Your task to perform on an android device: create a new album in the google photos Image 0: 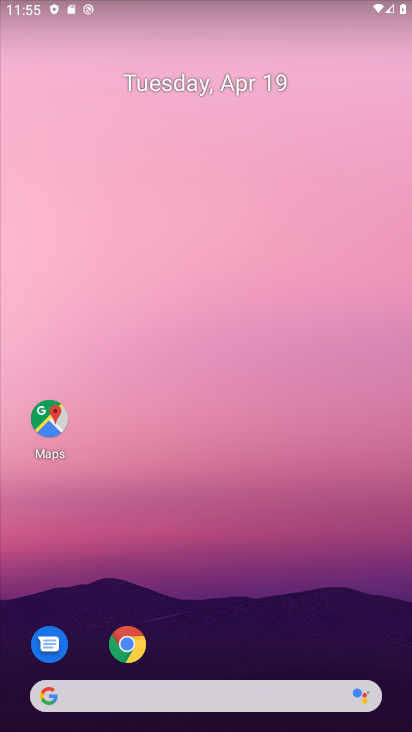
Step 0: drag from (309, 623) to (329, 66)
Your task to perform on an android device: create a new album in the google photos Image 1: 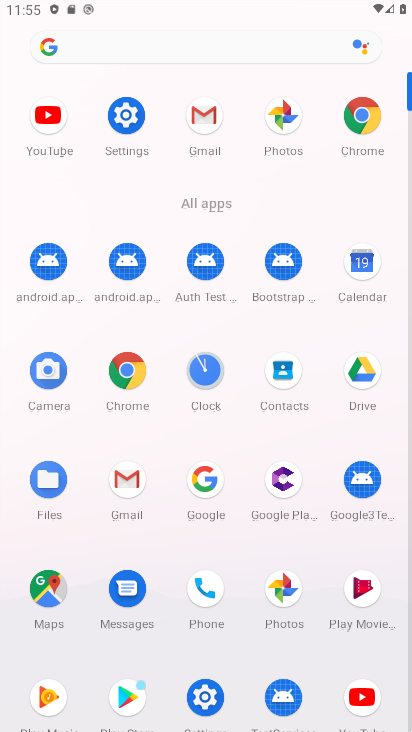
Step 1: click (277, 105)
Your task to perform on an android device: create a new album in the google photos Image 2: 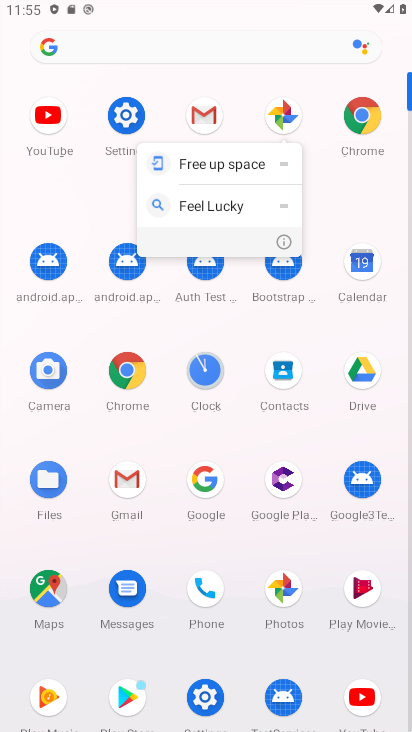
Step 2: click (275, 111)
Your task to perform on an android device: create a new album in the google photos Image 3: 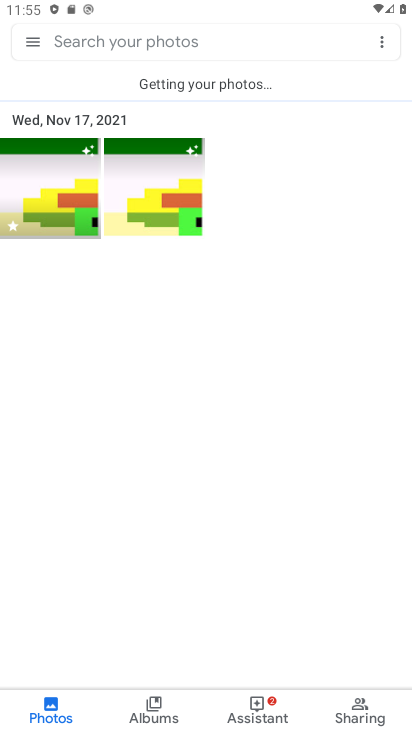
Step 3: click (139, 697)
Your task to perform on an android device: create a new album in the google photos Image 4: 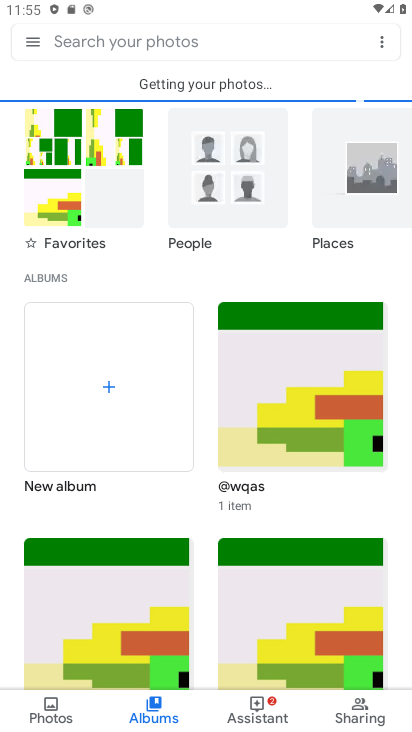
Step 4: click (106, 383)
Your task to perform on an android device: create a new album in the google photos Image 5: 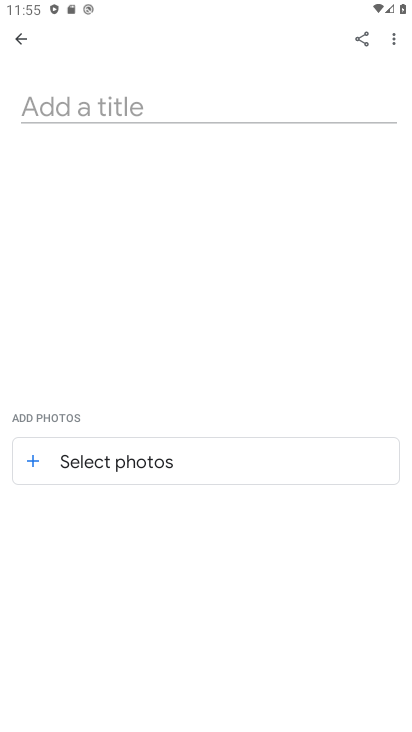
Step 5: click (180, 101)
Your task to perform on an android device: create a new album in the google photos Image 6: 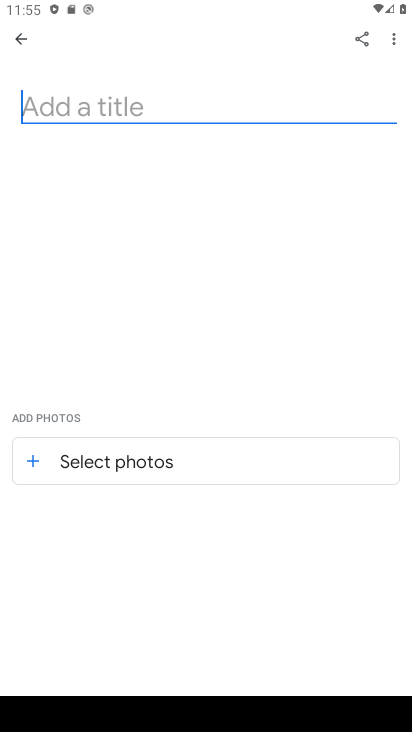
Step 6: type "Teerthraj Prayag"
Your task to perform on an android device: create a new album in the google photos Image 7: 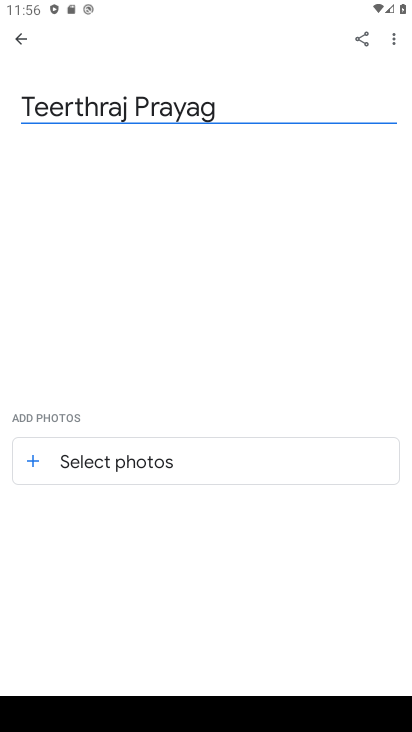
Step 7: click (134, 453)
Your task to perform on an android device: create a new album in the google photos Image 8: 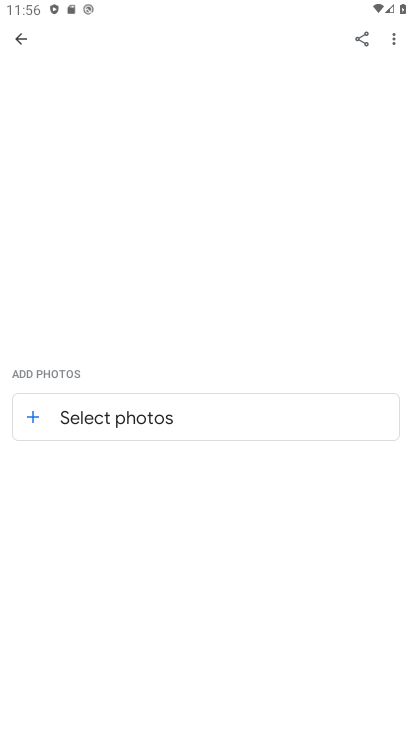
Step 8: click (162, 408)
Your task to perform on an android device: create a new album in the google photos Image 9: 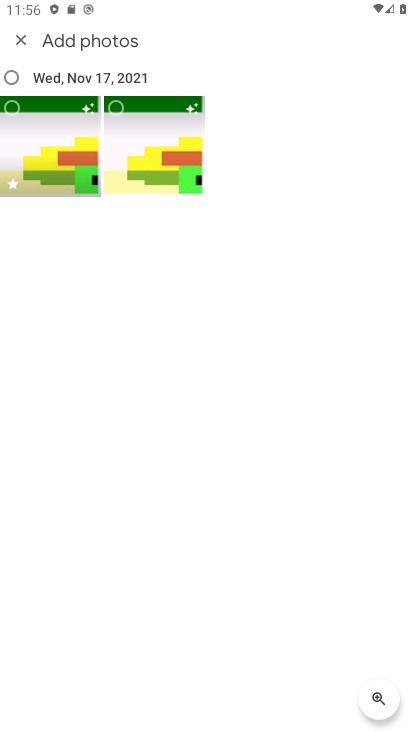
Step 9: click (167, 139)
Your task to perform on an android device: create a new album in the google photos Image 10: 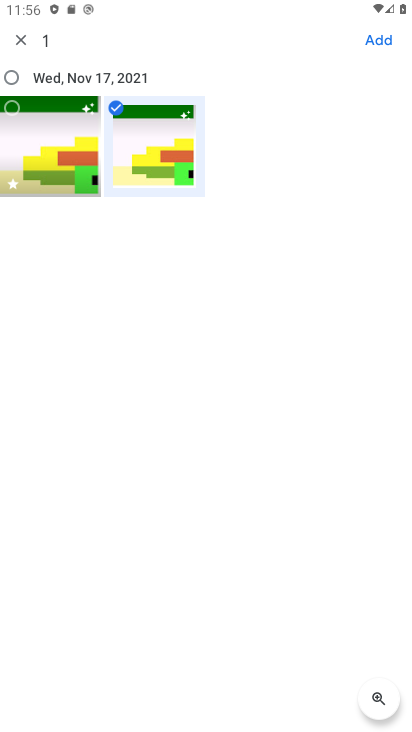
Step 10: click (118, 104)
Your task to perform on an android device: create a new album in the google photos Image 11: 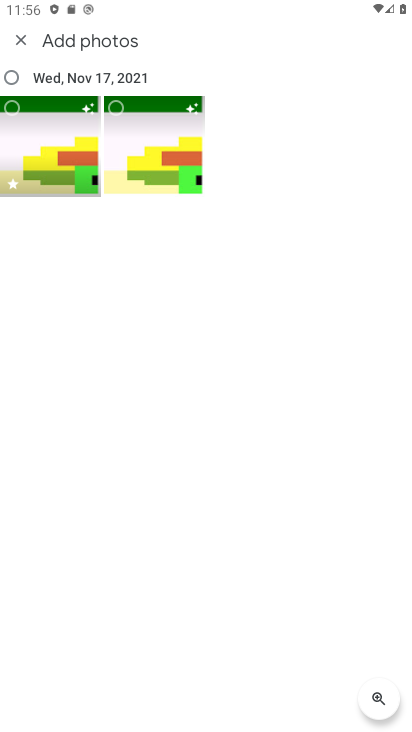
Step 11: click (116, 105)
Your task to perform on an android device: create a new album in the google photos Image 12: 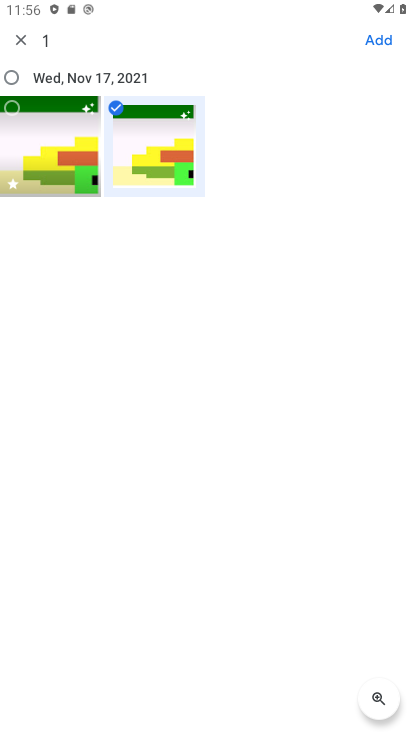
Step 12: click (376, 28)
Your task to perform on an android device: create a new album in the google photos Image 13: 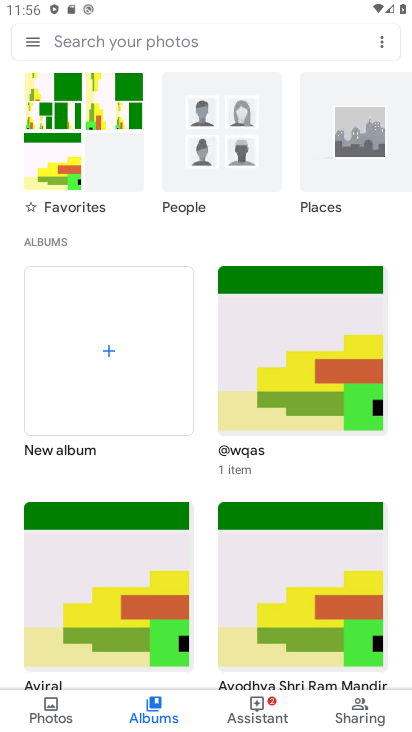
Step 13: task complete